Your task to perform on an android device: Set the phone to "Do not disturb". Image 0: 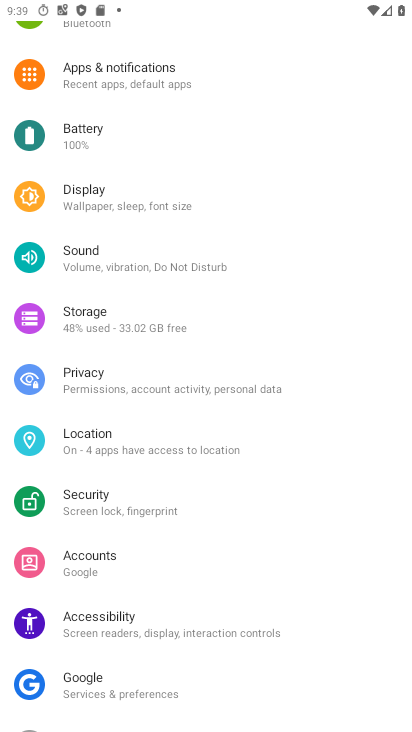
Step 0: click (148, 265)
Your task to perform on an android device: Set the phone to "Do not disturb". Image 1: 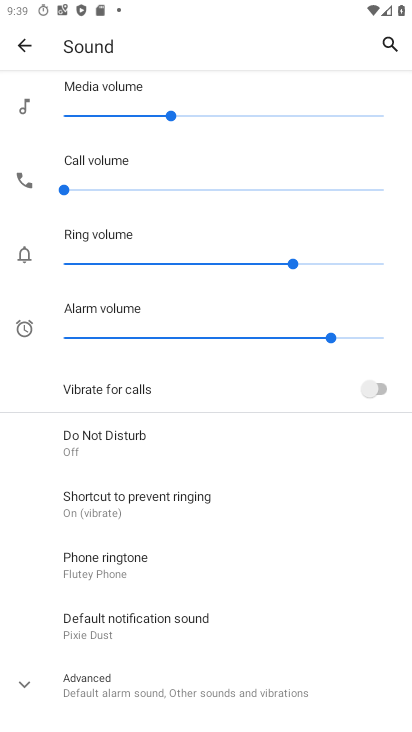
Step 1: click (120, 440)
Your task to perform on an android device: Set the phone to "Do not disturb". Image 2: 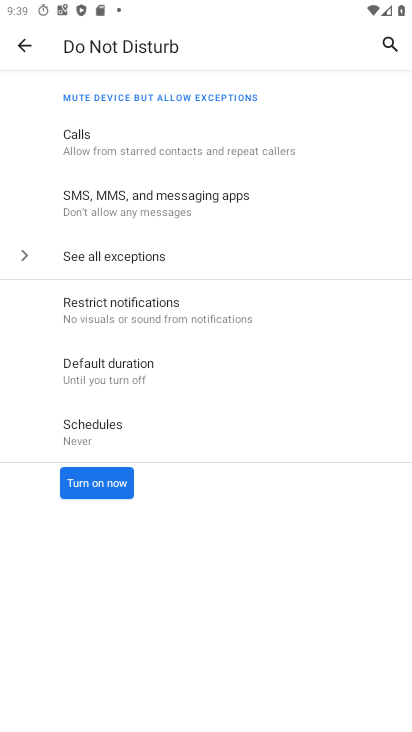
Step 2: click (103, 487)
Your task to perform on an android device: Set the phone to "Do not disturb". Image 3: 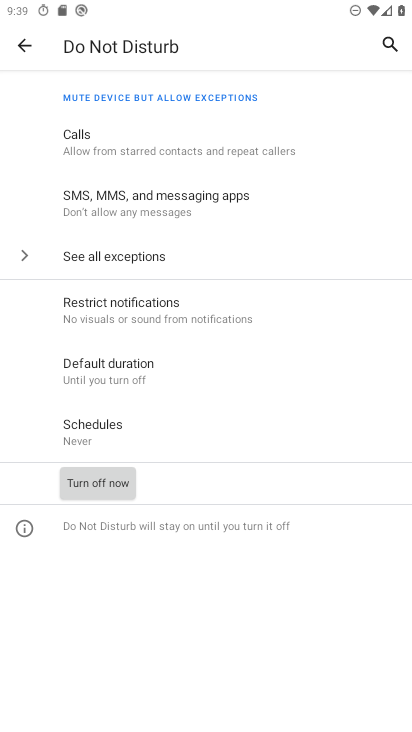
Step 3: task complete